Your task to perform on an android device: open sync settings in chrome Image 0: 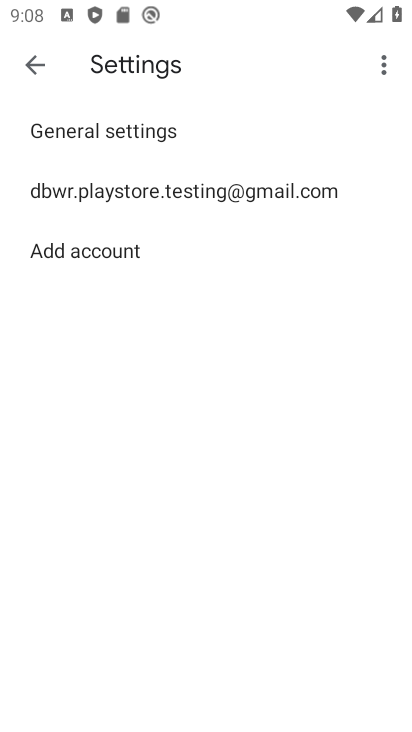
Step 0: press home button
Your task to perform on an android device: open sync settings in chrome Image 1: 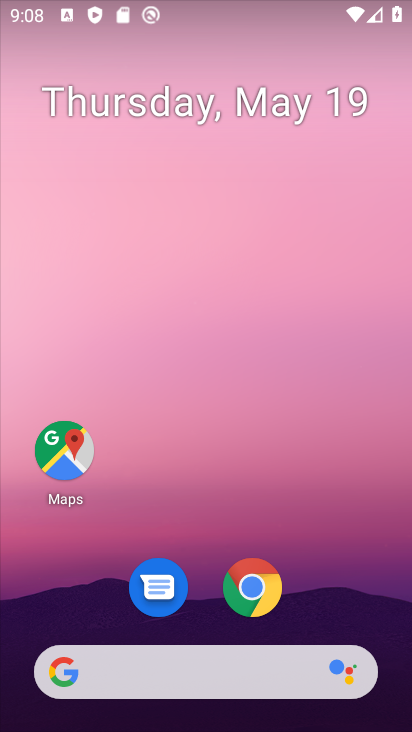
Step 1: drag from (329, 573) to (318, 85)
Your task to perform on an android device: open sync settings in chrome Image 2: 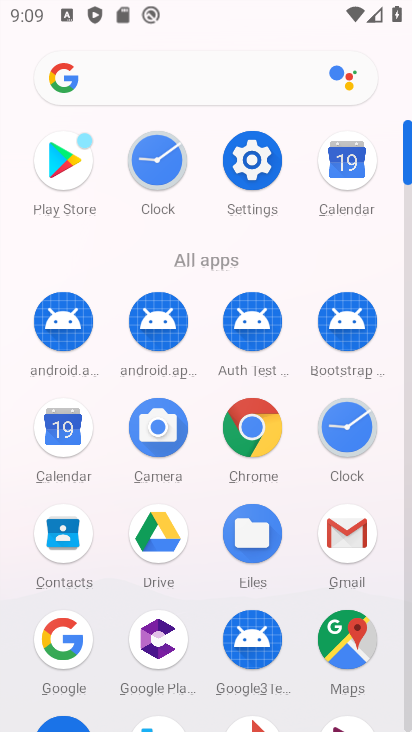
Step 2: click (246, 171)
Your task to perform on an android device: open sync settings in chrome Image 3: 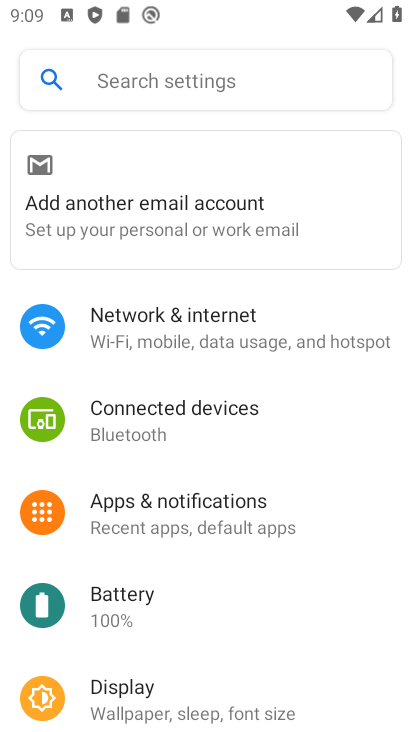
Step 3: drag from (209, 578) to (207, 203)
Your task to perform on an android device: open sync settings in chrome Image 4: 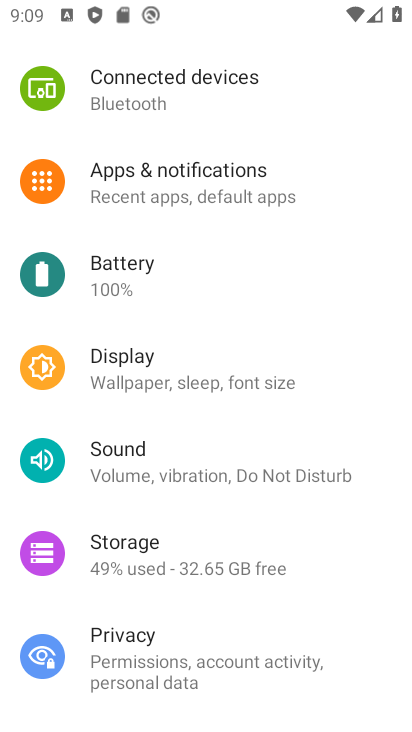
Step 4: drag from (186, 601) to (173, 303)
Your task to perform on an android device: open sync settings in chrome Image 5: 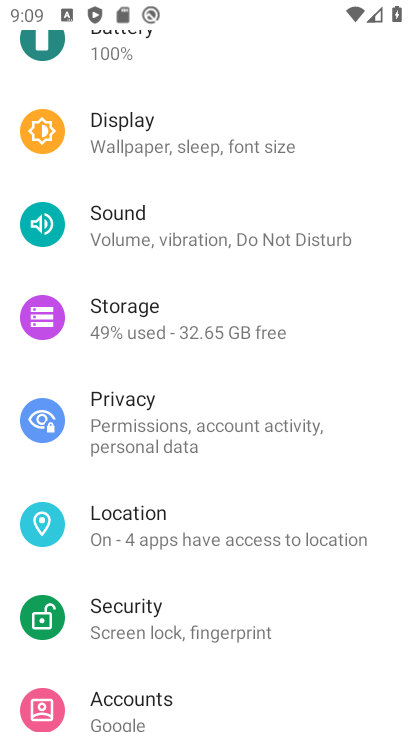
Step 5: press home button
Your task to perform on an android device: open sync settings in chrome Image 6: 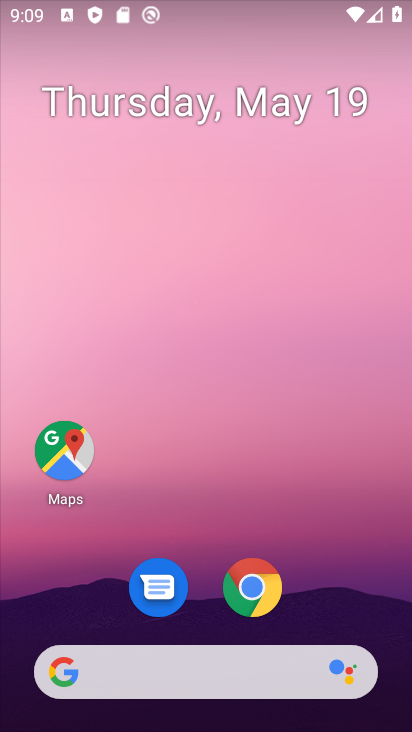
Step 6: drag from (375, 570) to (372, 112)
Your task to perform on an android device: open sync settings in chrome Image 7: 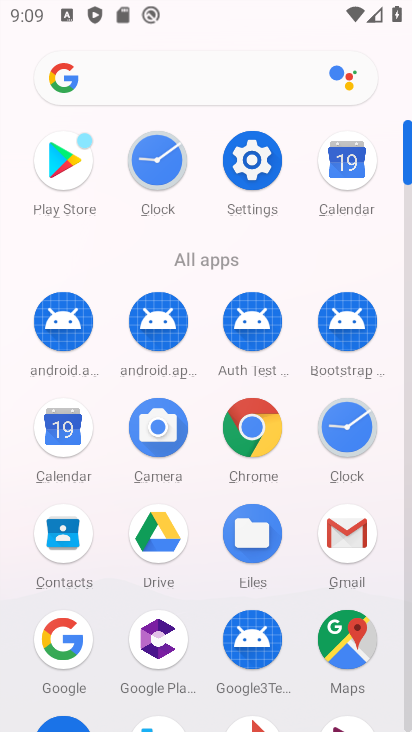
Step 7: click (243, 413)
Your task to perform on an android device: open sync settings in chrome Image 8: 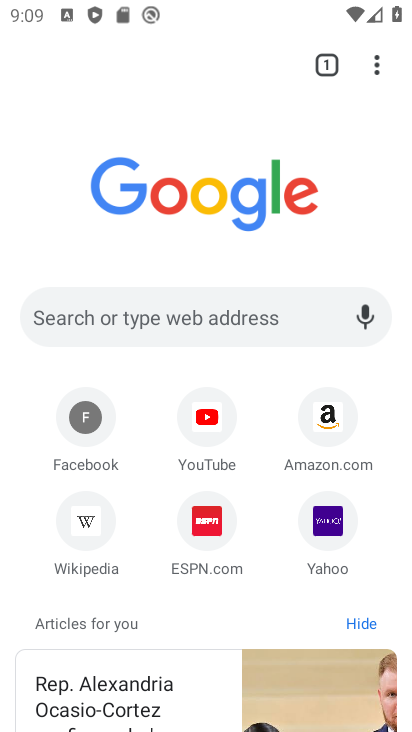
Step 8: drag from (384, 80) to (202, 574)
Your task to perform on an android device: open sync settings in chrome Image 9: 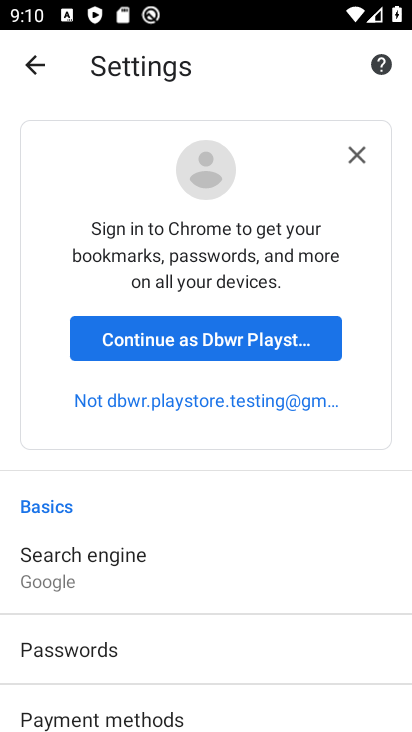
Step 9: drag from (235, 643) to (327, 262)
Your task to perform on an android device: open sync settings in chrome Image 10: 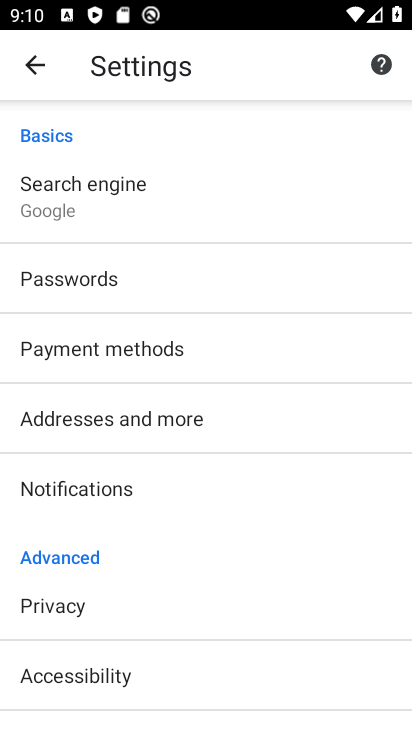
Step 10: drag from (264, 624) to (322, 310)
Your task to perform on an android device: open sync settings in chrome Image 11: 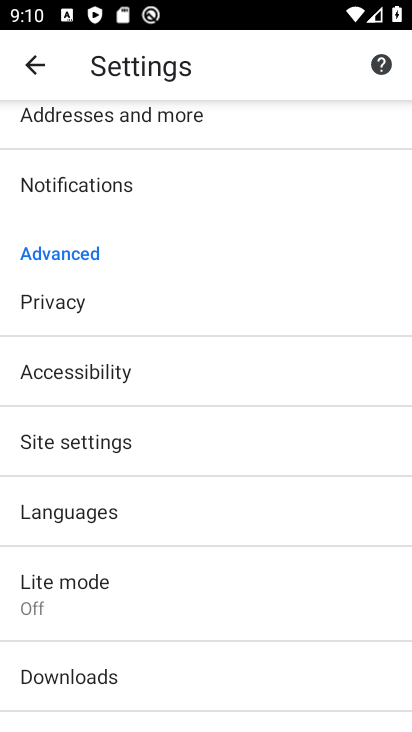
Step 11: click (188, 450)
Your task to perform on an android device: open sync settings in chrome Image 12: 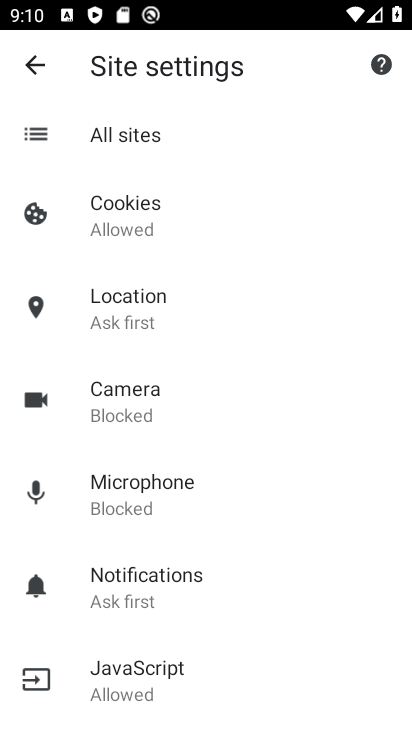
Step 12: drag from (257, 654) to (283, 193)
Your task to perform on an android device: open sync settings in chrome Image 13: 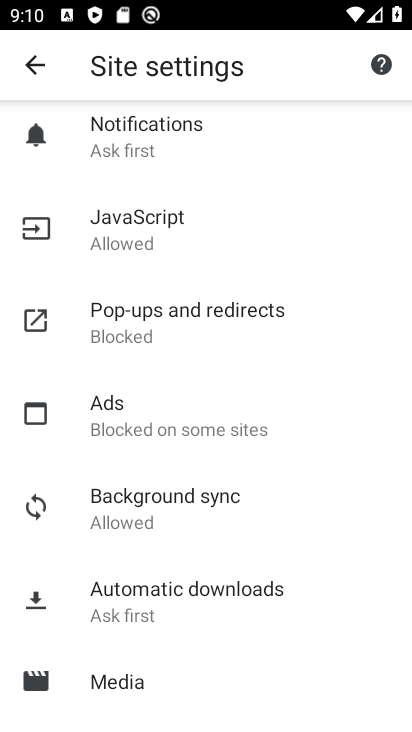
Step 13: click (156, 532)
Your task to perform on an android device: open sync settings in chrome Image 14: 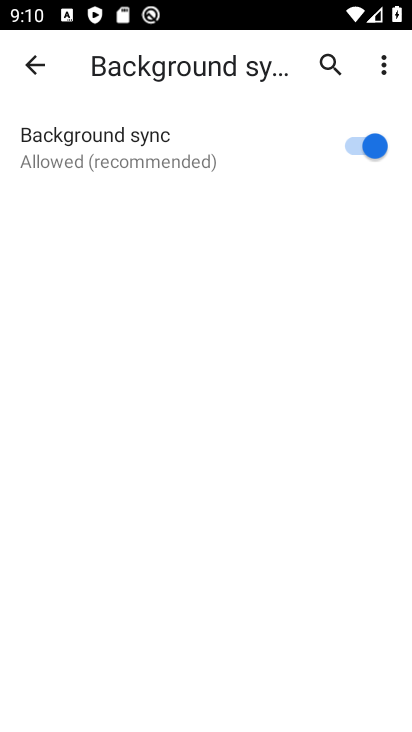
Step 14: task complete